Your task to perform on an android device: Open the calendar app, open the side menu, and click the "Day" option Image 0: 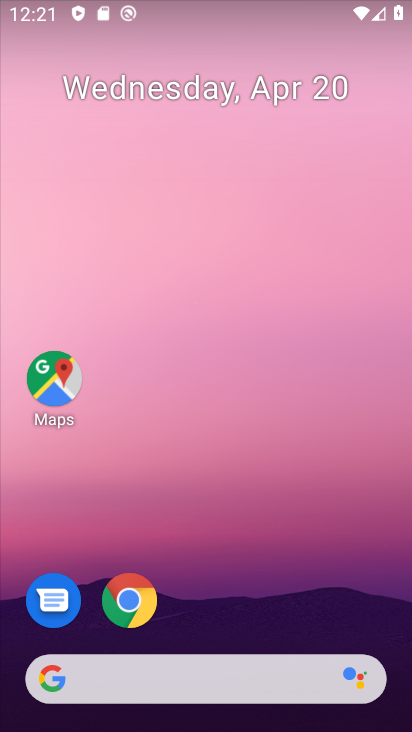
Step 0: drag from (269, 431) to (294, 117)
Your task to perform on an android device: Open the calendar app, open the side menu, and click the "Day" option Image 1: 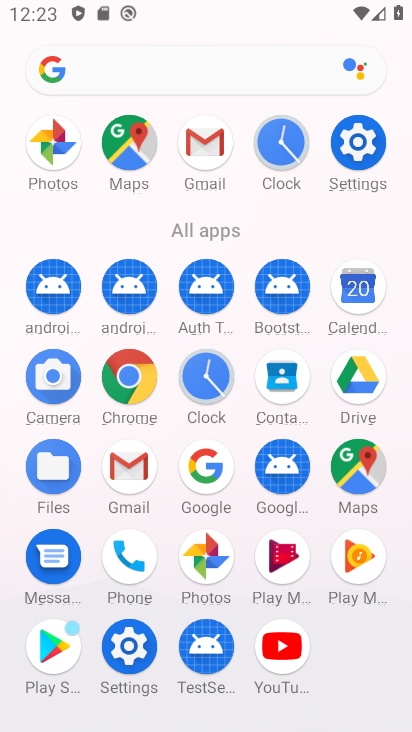
Step 1: click (370, 294)
Your task to perform on an android device: Open the calendar app, open the side menu, and click the "Day" option Image 2: 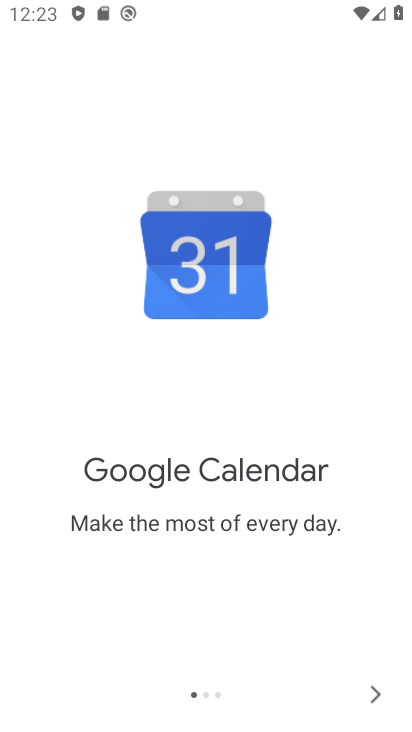
Step 2: click (371, 692)
Your task to perform on an android device: Open the calendar app, open the side menu, and click the "Day" option Image 3: 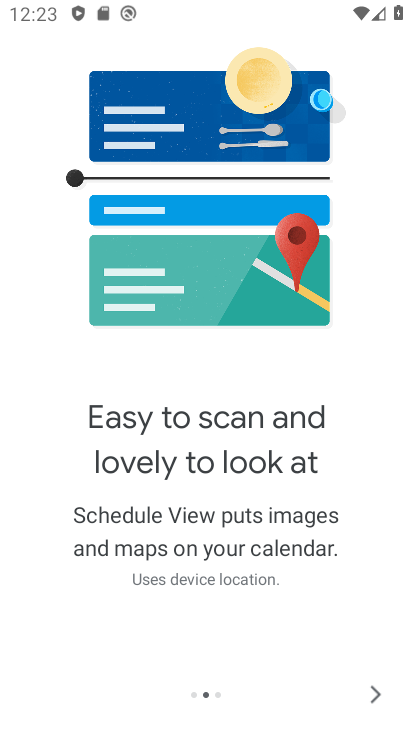
Step 3: click (371, 692)
Your task to perform on an android device: Open the calendar app, open the side menu, and click the "Day" option Image 4: 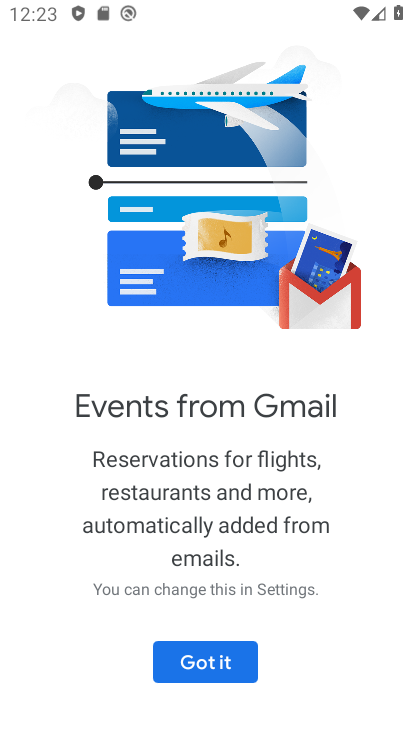
Step 4: click (204, 649)
Your task to perform on an android device: Open the calendar app, open the side menu, and click the "Day" option Image 5: 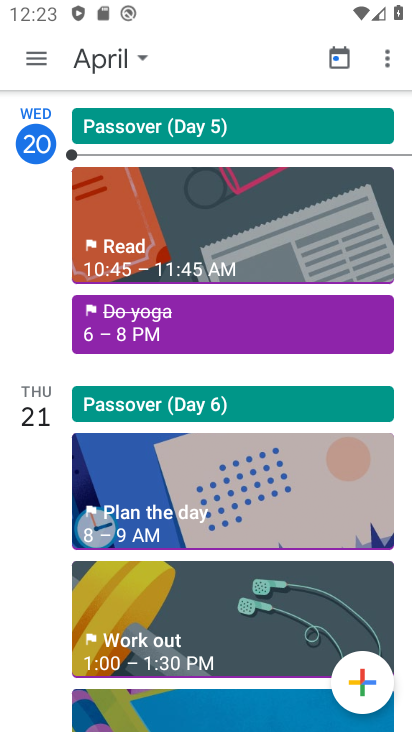
Step 5: click (33, 62)
Your task to perform on an android device: Open the calendar app, open the side menu, and click the "Day" option Image 6: 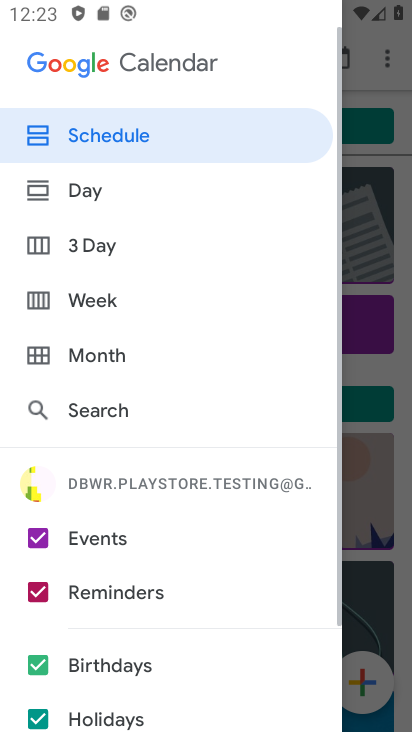
Step 6: click (110, 176)
Your task to perform on an android device: Open the calendar app, open the side menu, and click the "Day" option Image 7: 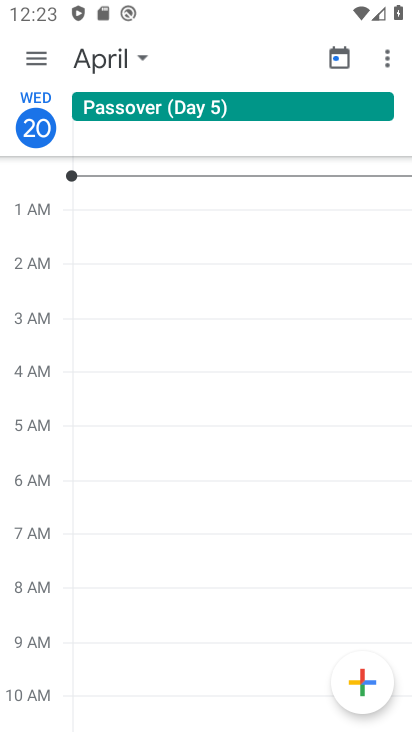
Step 7: task complete